Your task to perform on an android device: toggle show notifications on the lock screen Image 0: 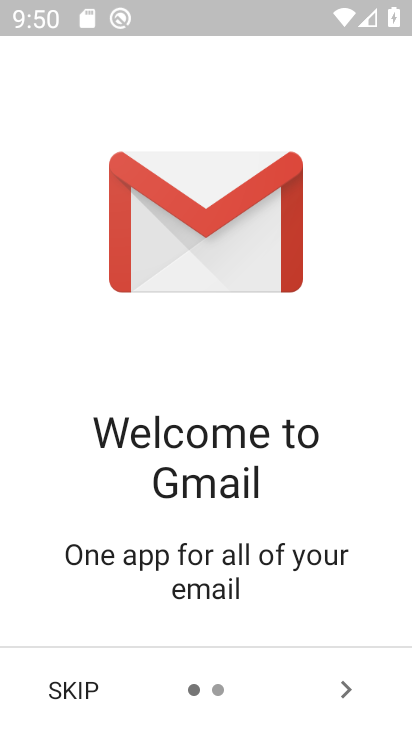
Step 0: press home button
Your task to perform on an android device: toggle show notifications on the lock screen Image 1: 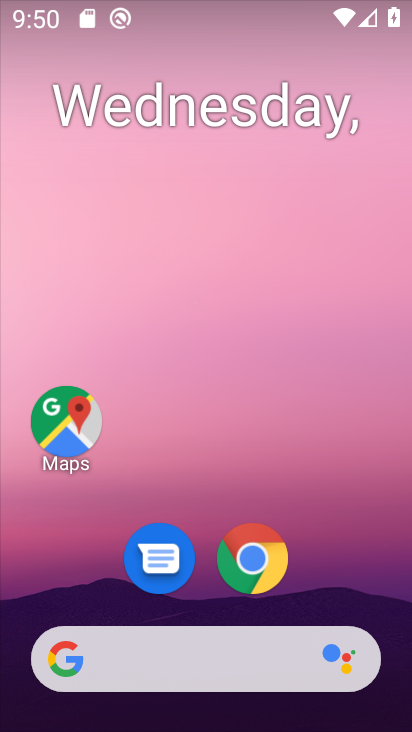
Step 1: drag from (357, 584) to (367, 224)
Your task to perform on an android device: toggle show notifications on the lock screen Image 2: 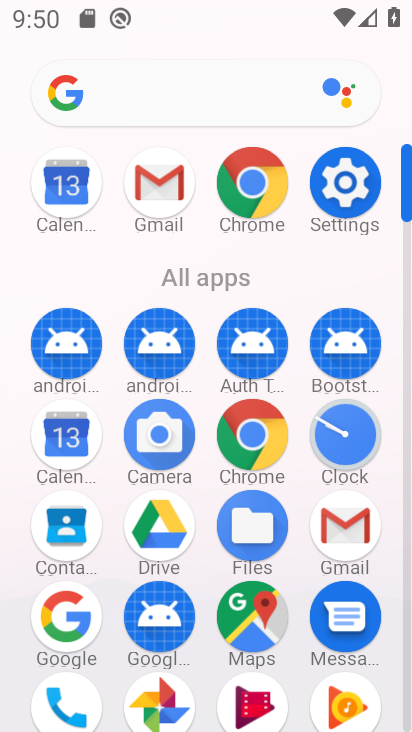
Step 2: click (341, 200)
Your task to perform on an android device: toggle show notifications on the lock screen Image 3: 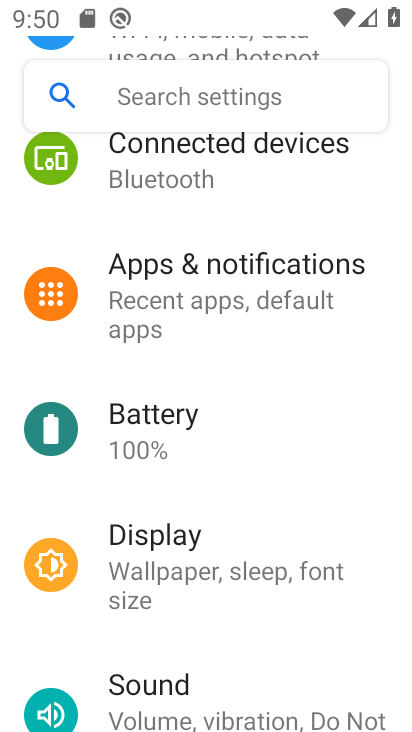
Step 3: drag from (311, 411) to (320, 139)
Your task to perform on an android device: toggle show notifications on the lock screen Image 4: 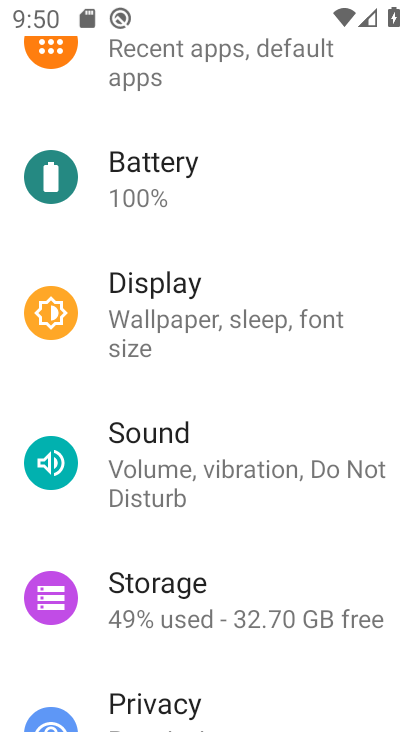
Step 4: drag from (327, 527) to (345, 415)
Your task to perform on an android device: toggle show notifications on the lock screen Image 5: 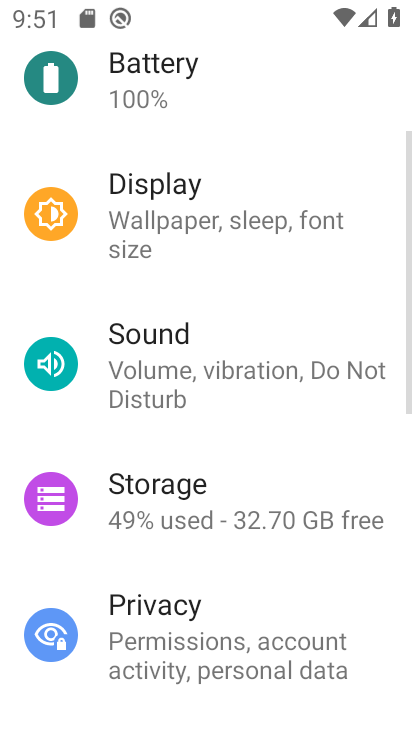
Step 5: drag from (323, 557) to (345, 440)
Your task to perform on an android device: toggle show notifications on the lock screen Image 6: 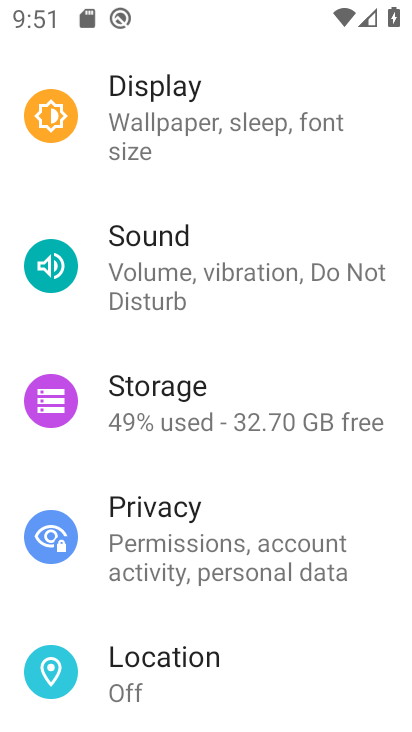
Step 6: drag from (353, 601) to (374, 476)
Your task to perform on an android device: toggle show notifications on the lock screen Image 7: 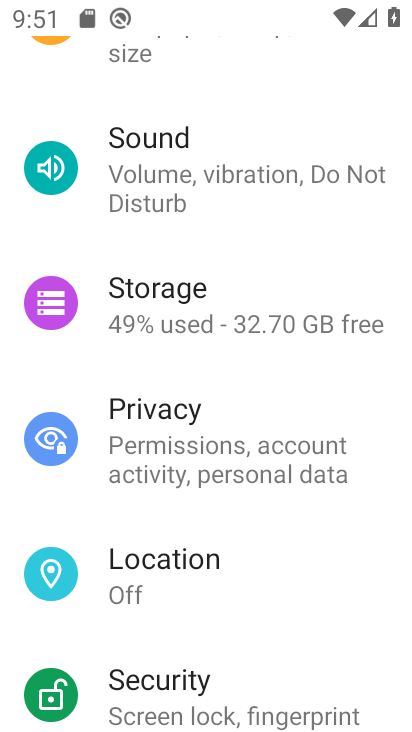
Step 7: drag from (352, 590) to (360, 472)
Your task to perform on an android device: toggle show notifications on the lock screen Image 8: 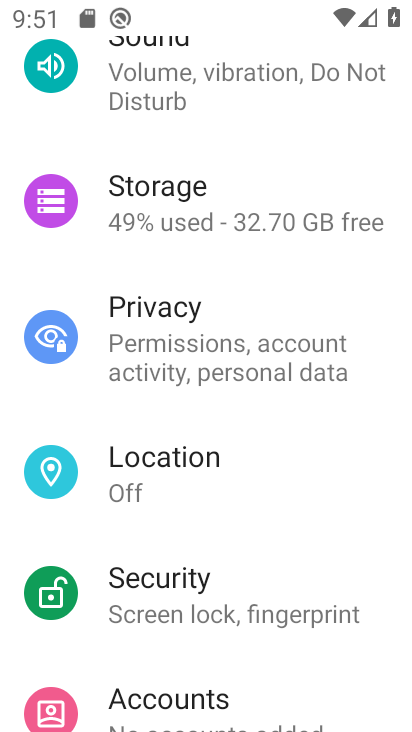
Step 8: drag from (372, 299) to (383, 424)
Your task to perform on an android device: toggle show notifications on the lock screen Image 9: 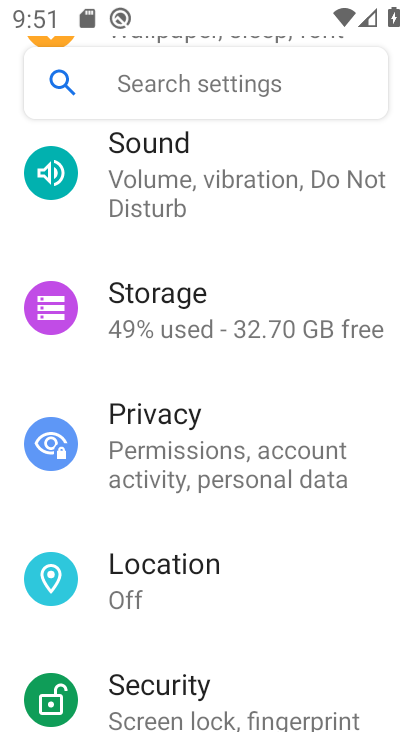
Step 9: drag from (383, 269) to (386, 377)
Your task to perform on an android device: toggle show notifications on the lock screen Image 10: 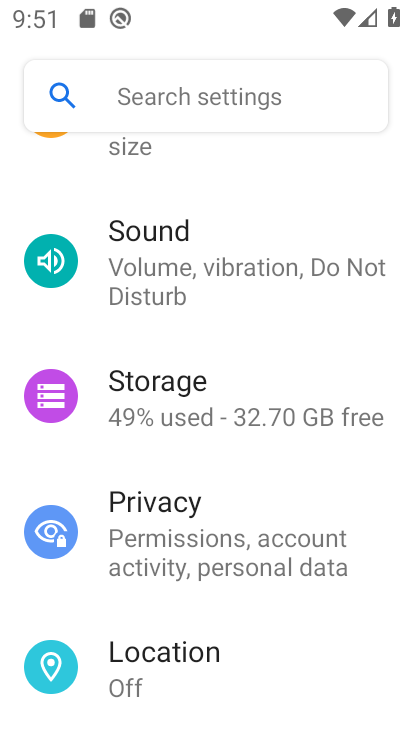
Step 10: drag from (382, 232) to (385, 377)
Your task to perform on an android device: toggle show notifications on the lock screen Image 11: 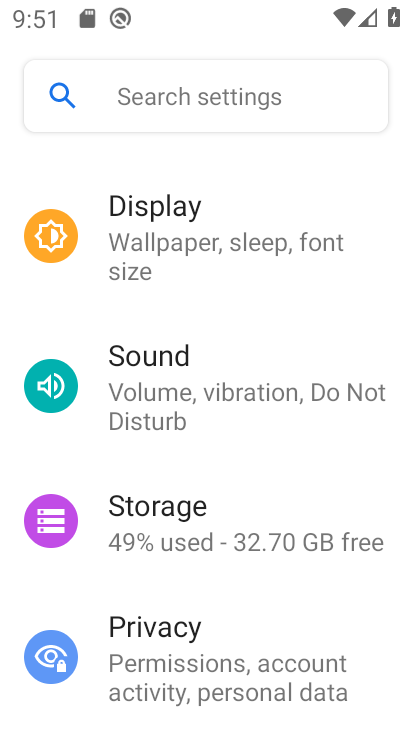
Step 11: drag from (374, 217) to (375, 350)
Your task to perform on an android device: toggle show notifications on the lock screen Image 12: 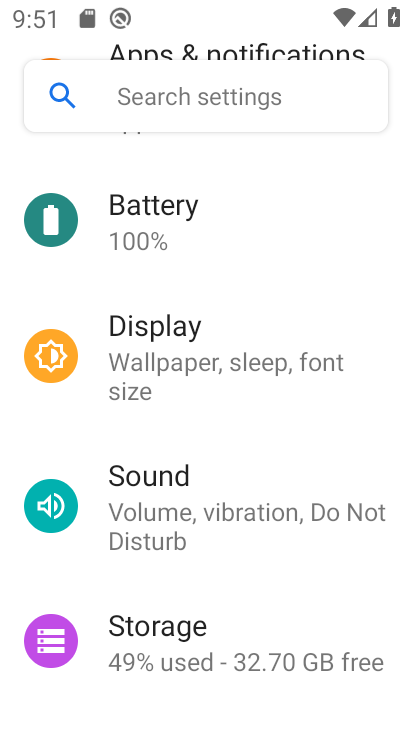
Step 12: drag from (358, 214) to (352, 343)
Your task to perform on an android device: toggle show notifications on the lock screen Image 13: 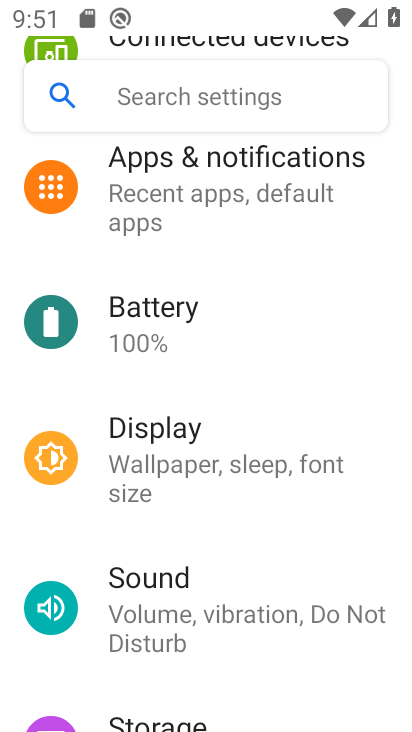
Step 13: click (318, 189)
Your task to perform on an android device: toggle show notifications on the lock screen Image 14: 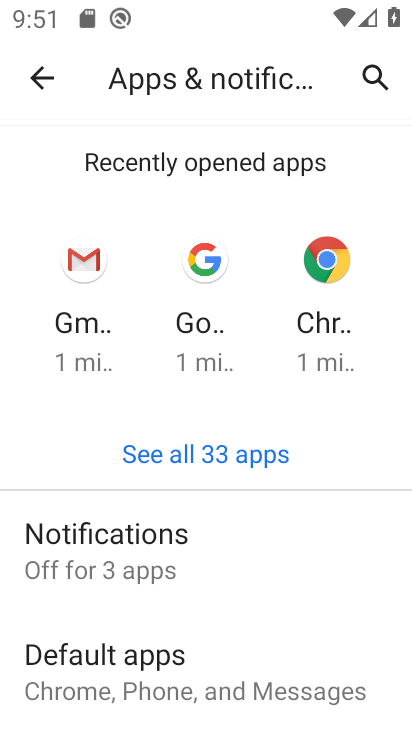
Step 14: click (168, 559)
Your task to perform on an android device: toggle show notifications on the lock screen Image 15: 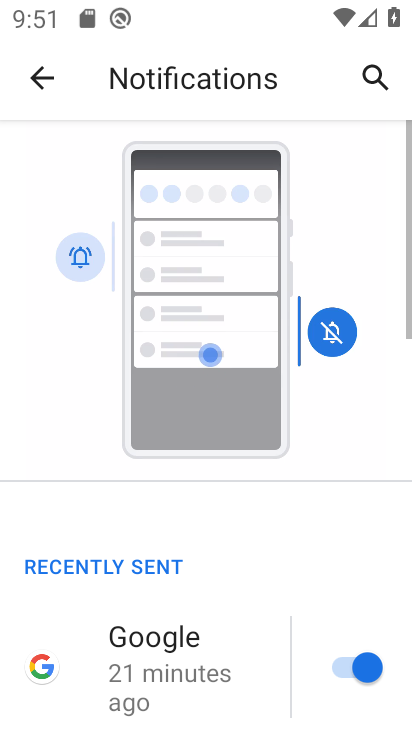
Step 15: drag from (269, 557) to (276, 406)
Your task to perform on an android device: toggle show notifications on the lock screen Image 16: 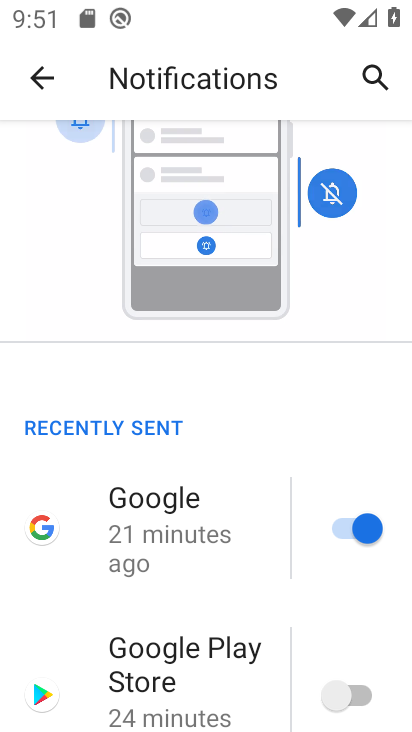
Step 16: drag from (261, 564) to (271, 405)
Your task to perform on an android device: toggle show notifications on the lock screen Image 17: 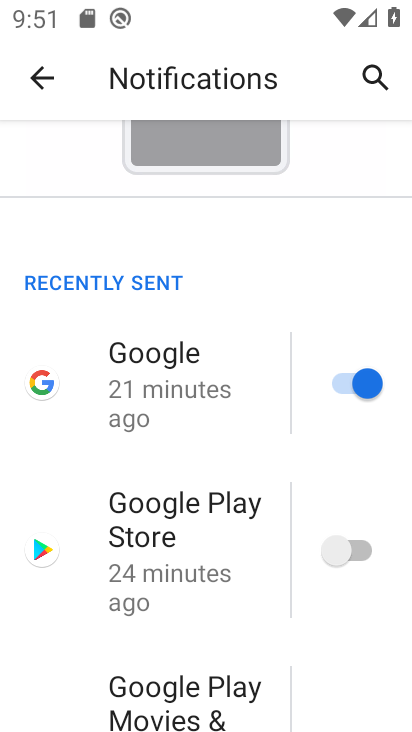
Step 17: drag from (269, 592) to (267, 454)
Your task to perform on an android device: toggle show notifications on the lock screen Image 18: 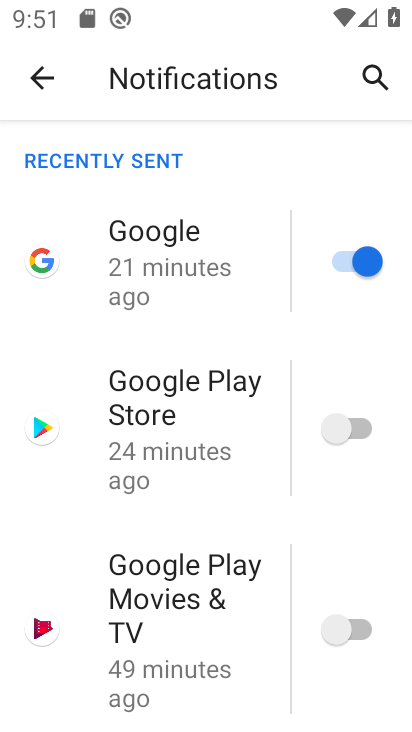
Step 18: drag from (246, 624) to (239, 448)
Your task to perform on an android device: toggle show notifications on the lock screen Image 19: 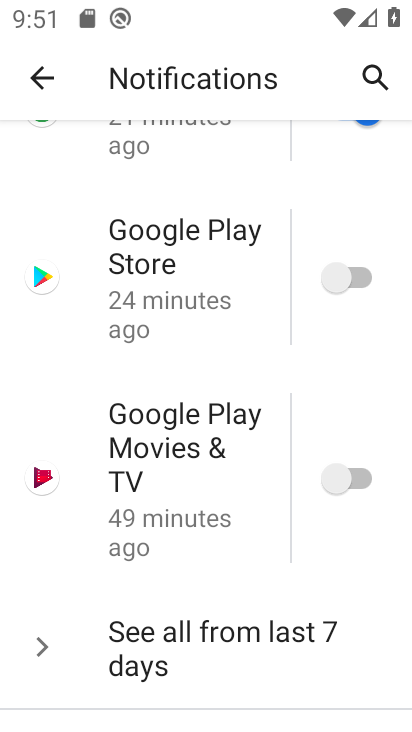
Step 19: drag from (238, 594) to (240, 396)
Your task to perform on an android device: toggle show notifications on the lock screen Image 20: 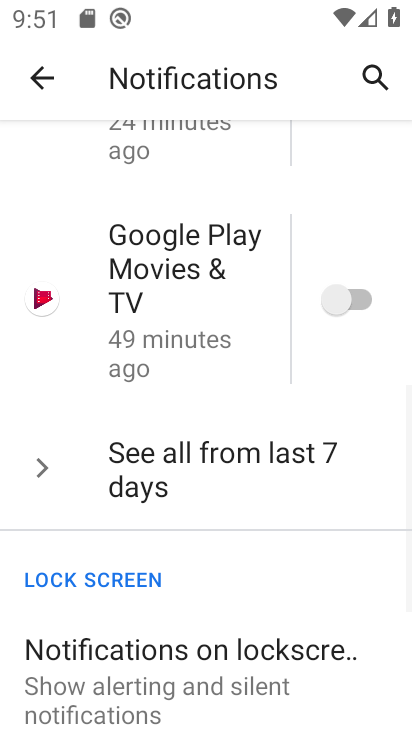
Step 20: drag from (265, 575) to (265, 358)
Your task to perform on an android device: toggle show notifications on the lock screen Image 21: 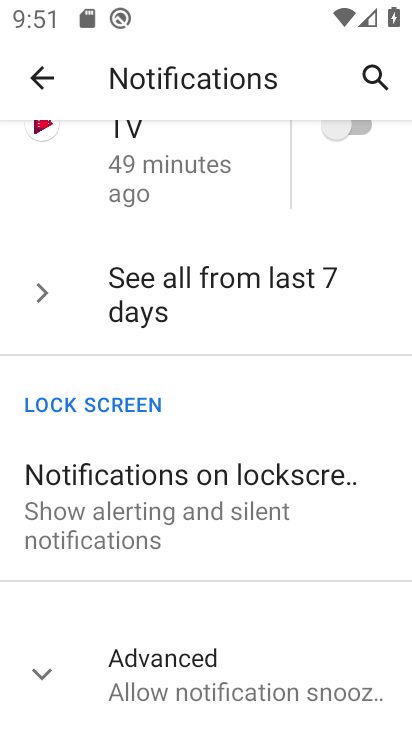
Step 21: click (224, 508)
Your task to perform on an android device: toggle show notifications on the lock screen Image 22: 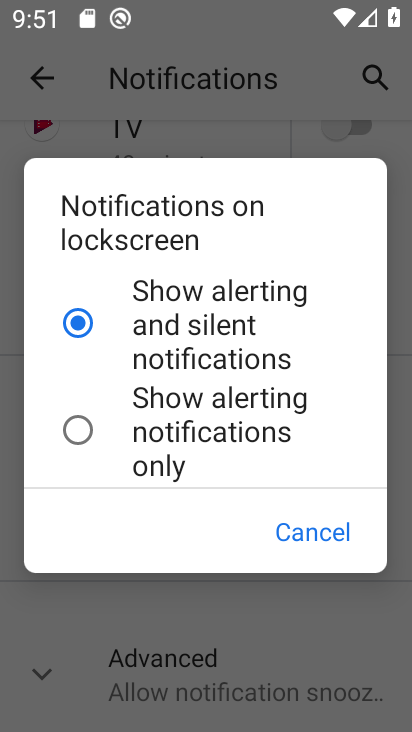
Step 22: click (91, 424)
Your task to perform on an android device: toggle show notifications on the lock screen Image 23: 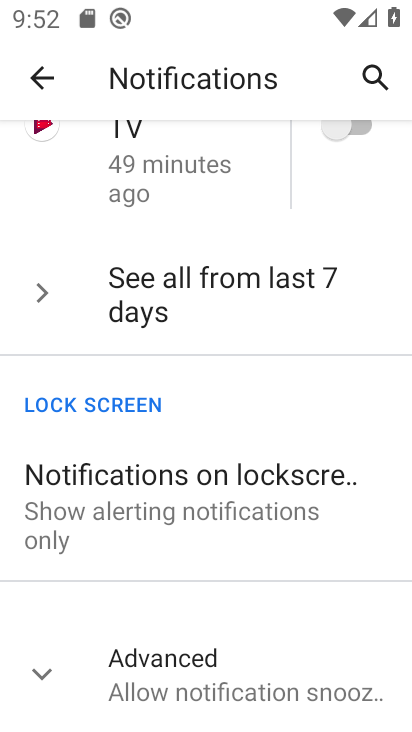
Step 23: task complete